Your task to perform on an android device: What's the weather going to be tomorrow? Image 0: 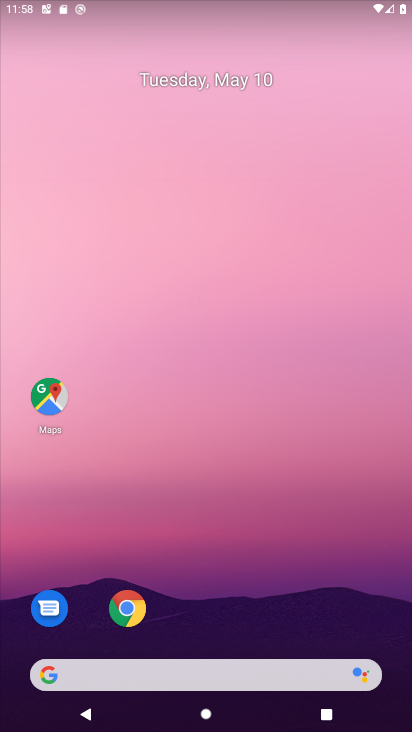
Step 0: drag from (254, 678) to (244, 600)
Your task to perform on an android device: What's the weather going to be tomorrow? Image 1: 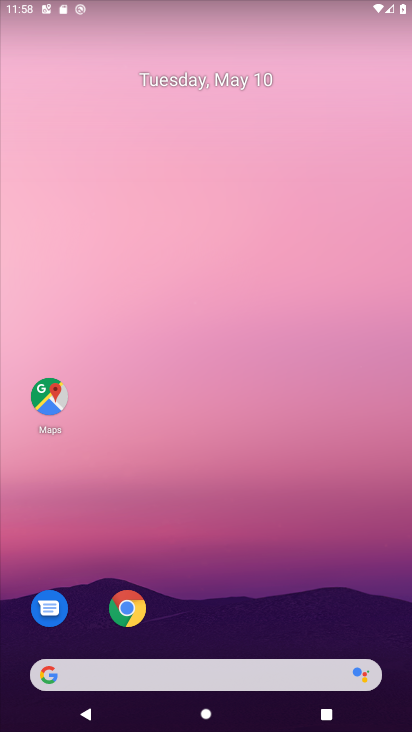
Step 1: drag from (194, 661) to (172, 214)
Your task to perform on an android device: What's the weather going to be tomorrow? Image 2: 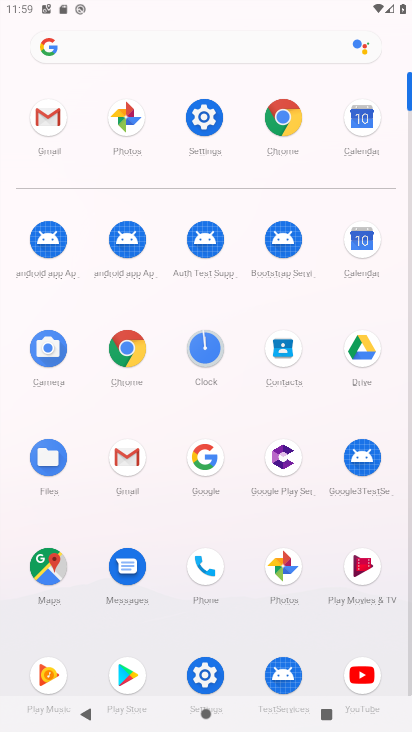
Step 2: click (197, 468)
Your task to perform on an android device: What's the weather going to be tomorrow? Image 3: 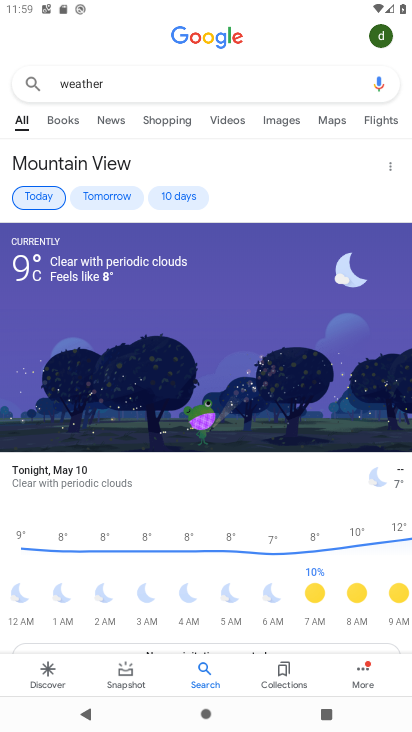
Step 3: click (112, 197)
Your task to perform on an android device: What's the weather going to be tomorrow? Image 4: 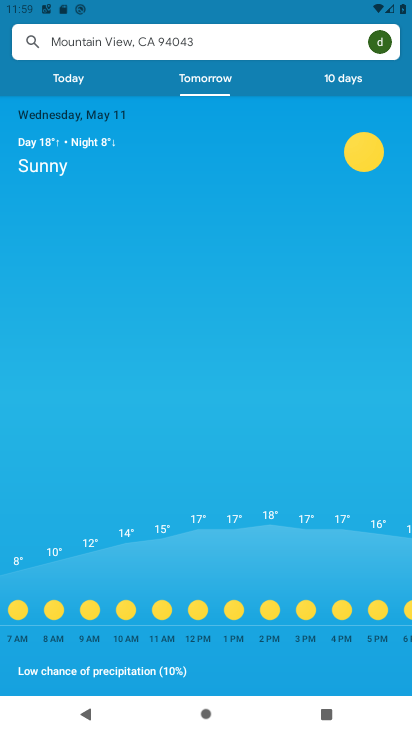
Step 4: task complete